Your task to perform on an android device: move a message to another label in the gmail app Image 0: 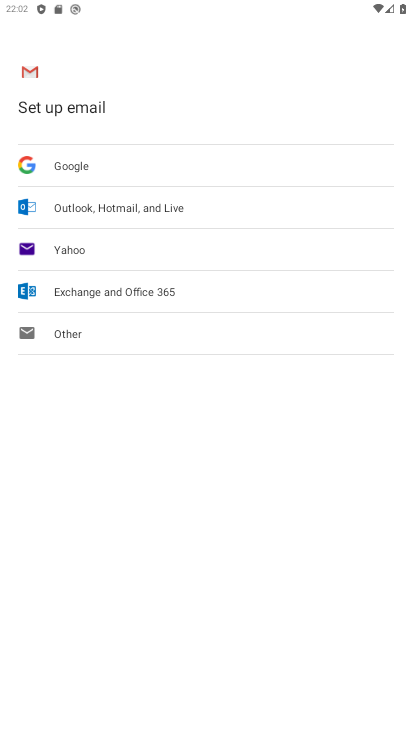
Step 0: press home button
Your task to perform on an android device: move a message to another label in the gmail app Image 1: 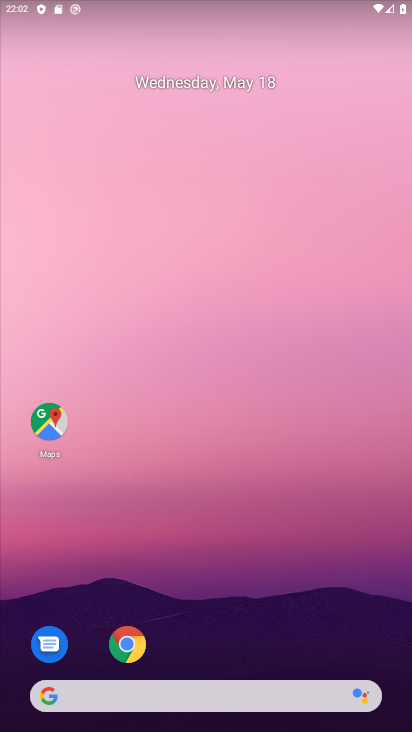
Step 1: drag from (291, 468) to (395, 4)
Your task to perform on an android device: move a message to another label in the gmail app Image 2: 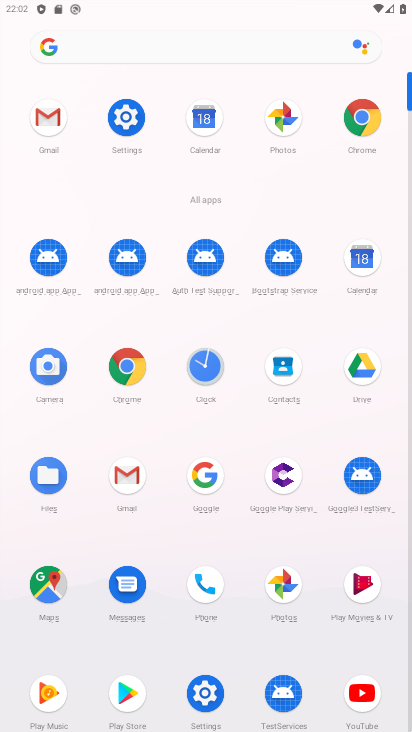
Step 2: click (60, 117)
Your task to perform on an android device: move a message to another label in the gmail app Image 3: 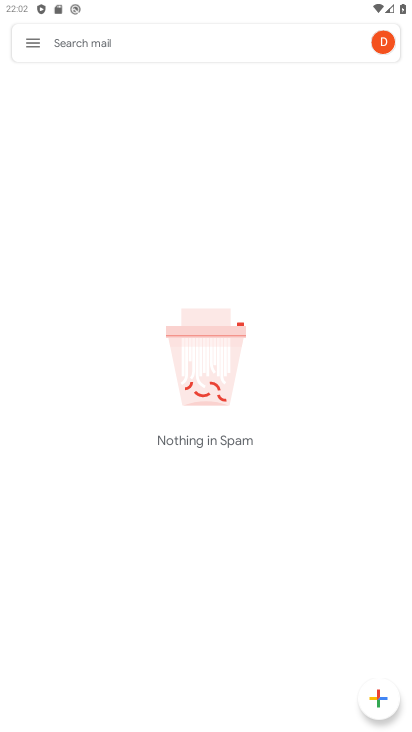
Step 3: click (35, 35)
Your task to perform on an android device: move a message to another label in the gmail app Image 4: 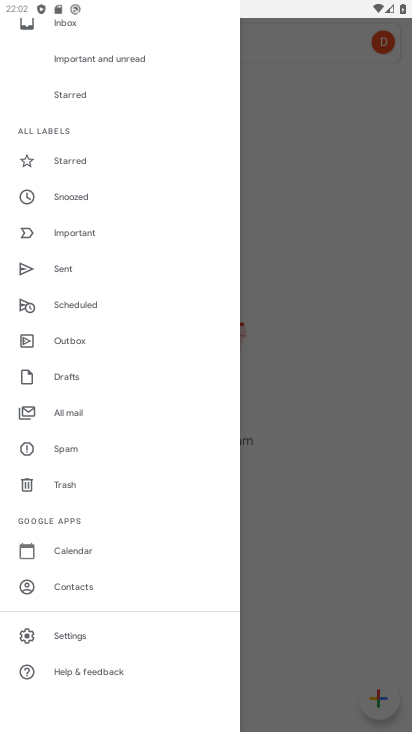
Step 4: drag from (63, 567) to (170, 290)
Your task to perform on an android device: move a message to another label in the gmail app Image 5: 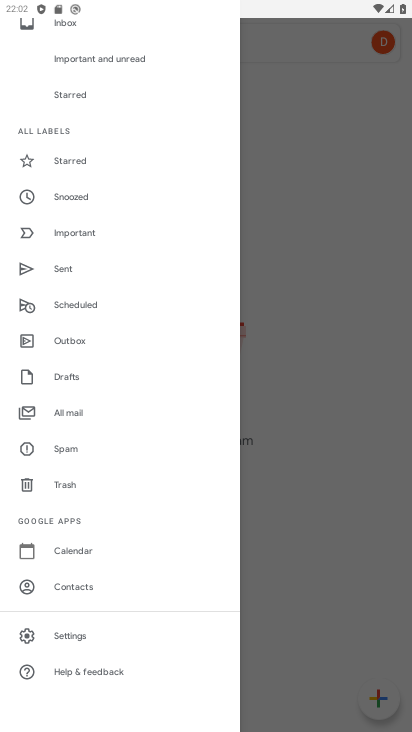
Step 5: click (52, 641)
Your task to perform on an android device: move a message to another label in the gmail app Image 6: 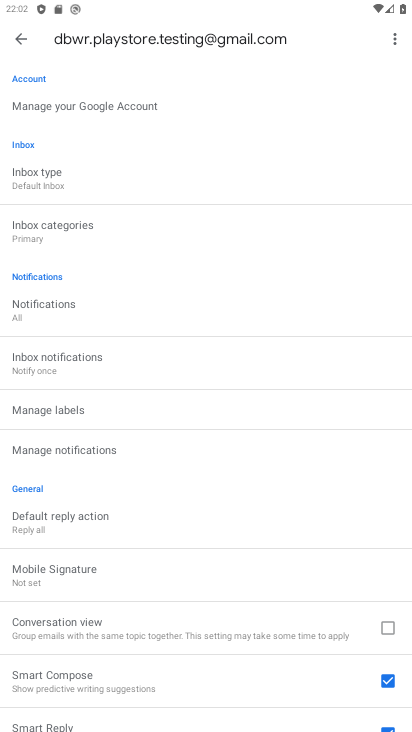
Step 6: click (20, 28)
Your task to perform on an android device: move a message to another label in the gmail app Image 7: 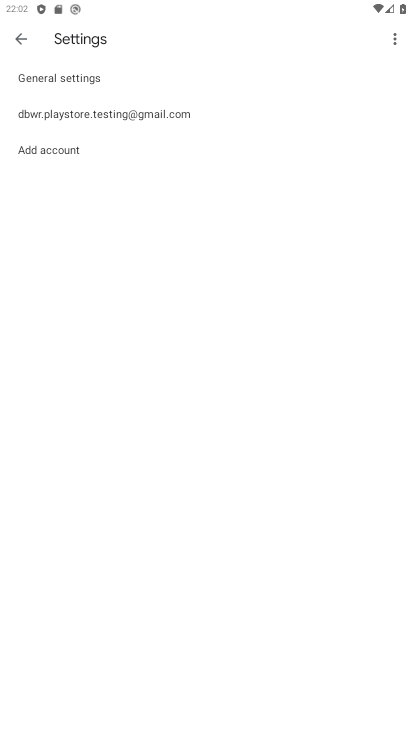
Step 7: click (20, 29)
Your task to perform on an android device: move a message to another label in the gmail app Image 8: 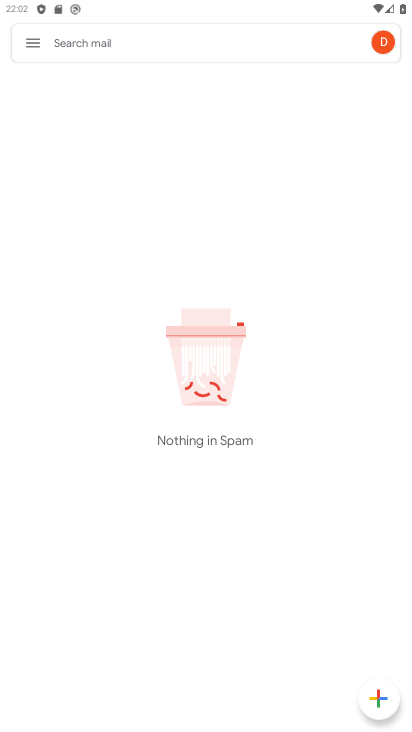
Step 8: click (33, 47)
Your task to perform on an android device: move a message to another label in the gmail app Image 9: 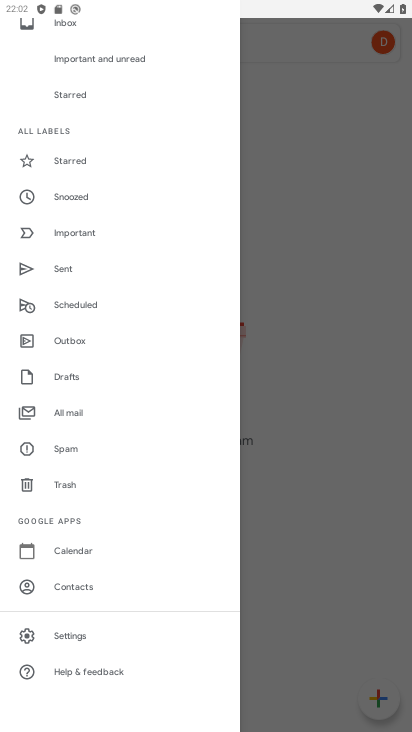
Step 9: click (68, 411)
Your task to perform on an android device: move a message to another label in the gmail app Image 10: 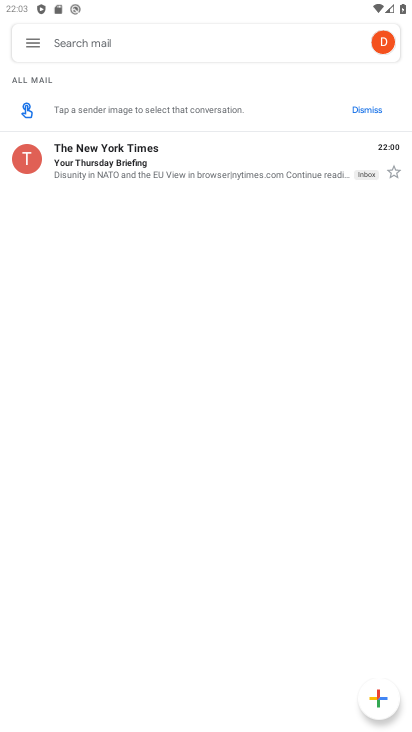
Step 10: click (314, 145)
Your task to perform on an android device: move a message to another label in the gmail app Image 11: 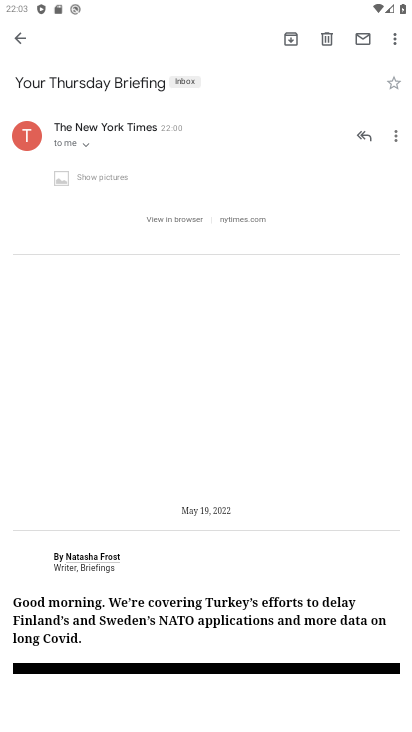
Step 11: click (394, 137)
Your task to perform on an android device: move a message to another label in the gmail app Image 12: 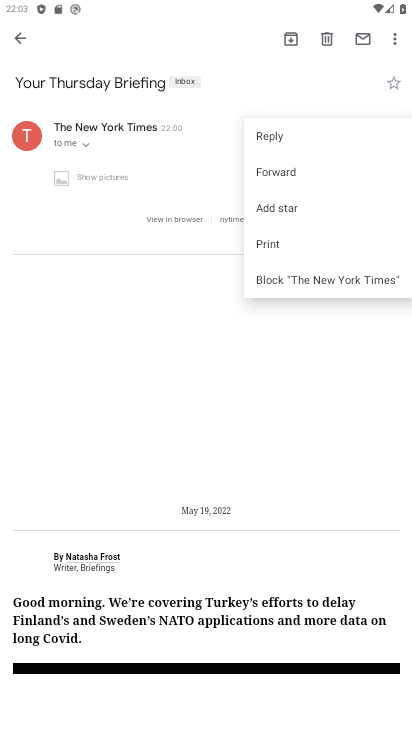
Step 12: click (398, 33)
Your task to perform on an android device: move a message to another label in the gmail app Image 13: 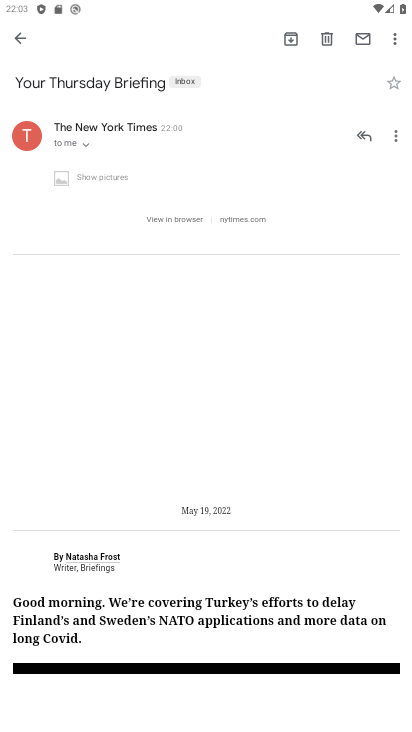
Step 13: click (398, 33)
Your task to perform on an android device: move a message to another label in the gmail app Image 14: 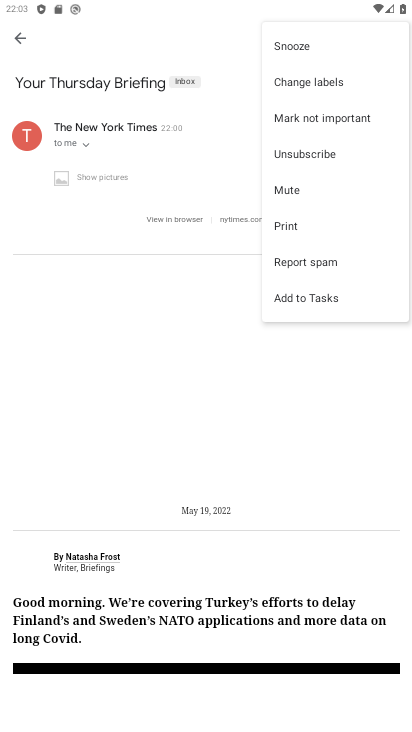
Step 14: click (325, 83)
Your task to perform on an android device: move a message to another label in the gmail app Image 15: 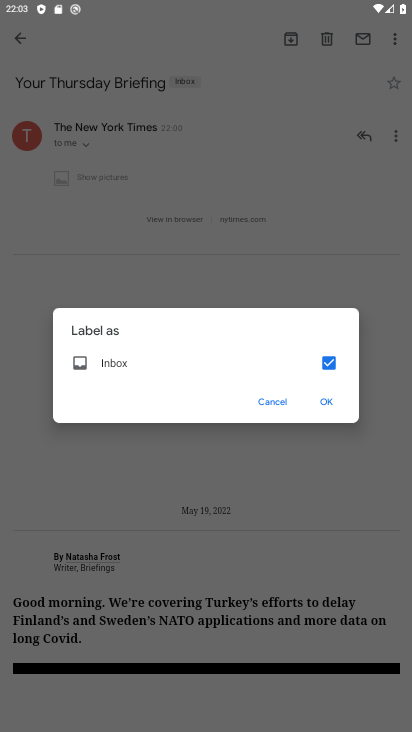
Step 15: click (331, 405)
Your task to perform on an android device: move a message to another label in the gmail app Image 16: 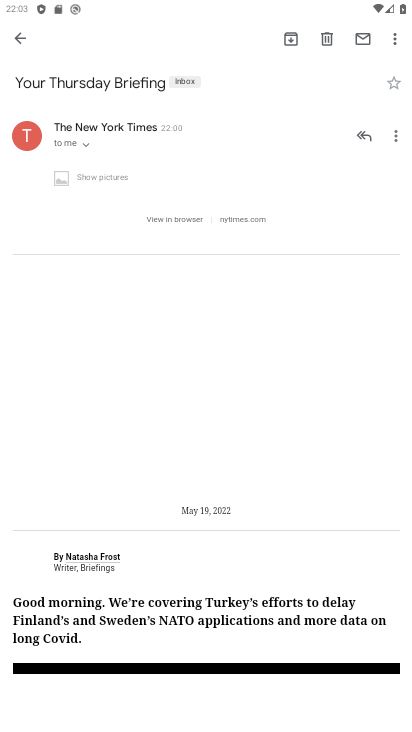
Step 16: task complete